Your task to perform on an android device: uninstall "PlayWell" Image 0: 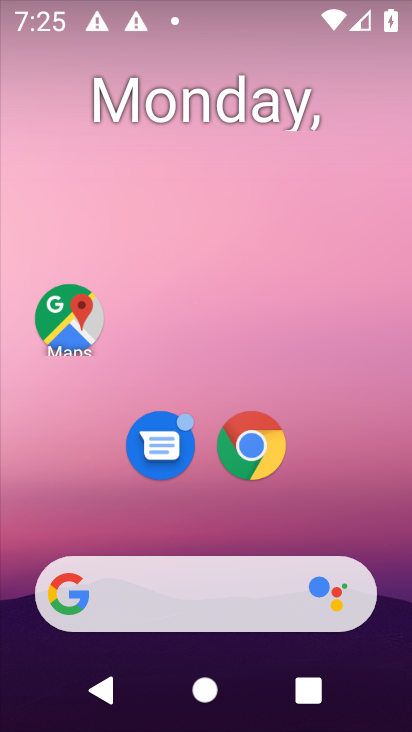
Step 0: drag from (401, 606) to (196, 15)
Your task to perform on an android device: uninstall "PlayWell" Image 1: 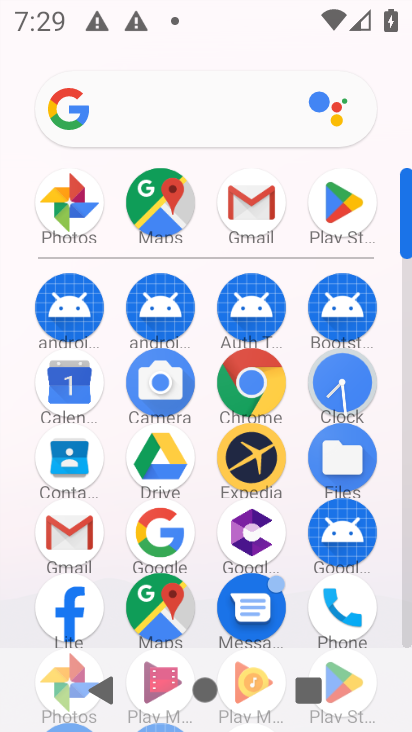
Step 1: click (317, 202)
Your task to perform on an android device: uninstall "PlayWell" Image 2: 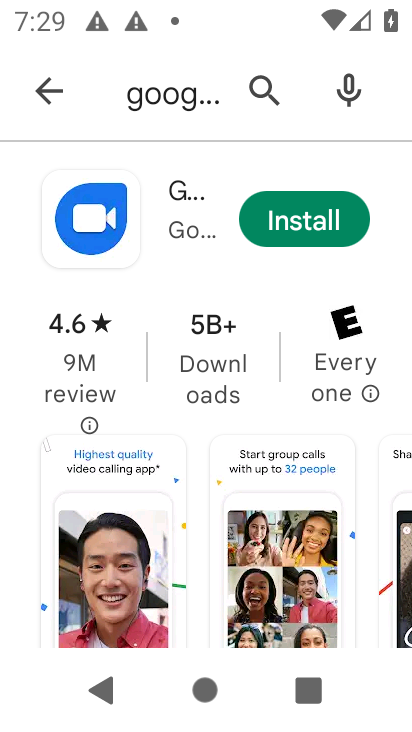
Step 2: press back button
Your task to perform on an android device: uninstall "PlayWell" Image 3: 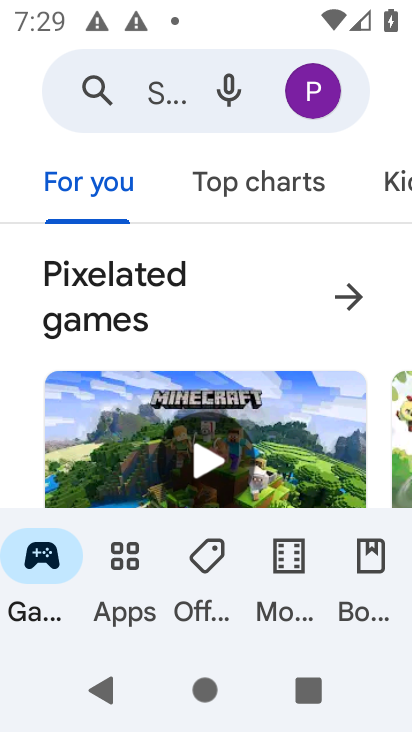
Step 3: click (152, 91)
Your task to perform on an android device: uninstall "PlayWell" Image 4: 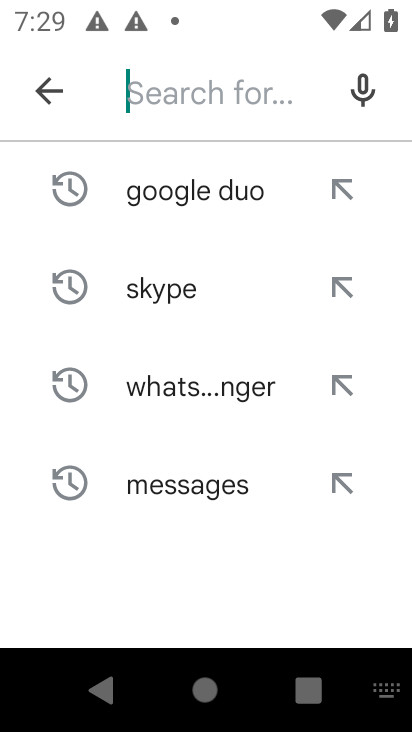
Step 4: type "PlayWell"
Your task to perform on an android device: uninstall "PlayWell" Image 5: 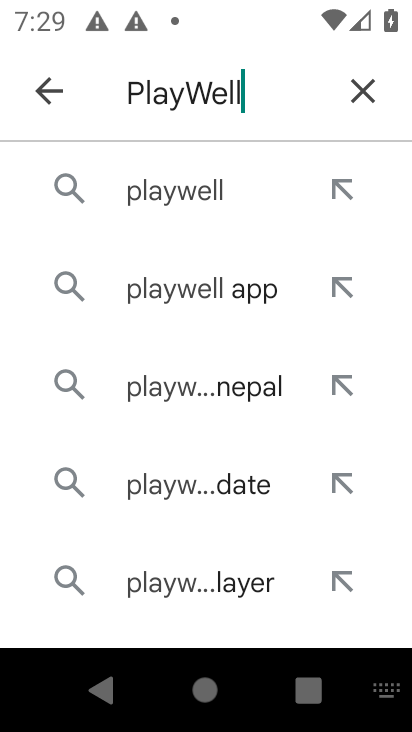
Step 5: click (170, 191)
Your task to perform on an android device: uninstall "PlayWell" Image 6: 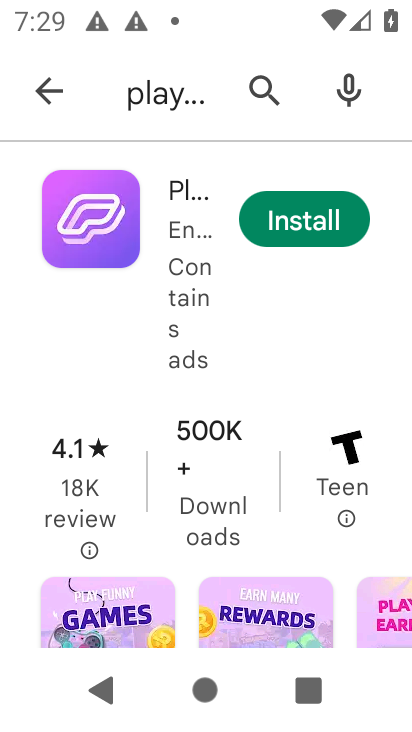
Step 6: task complete